Your task to perform on an android device: Show me popular games on the Play Store Image 0: 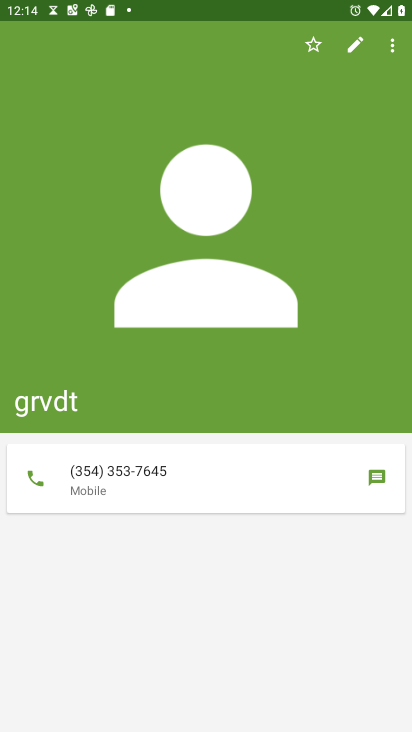
Step 0: press home button
Your task to perform on an android device: Show me popular games on the Play Store Image 1: 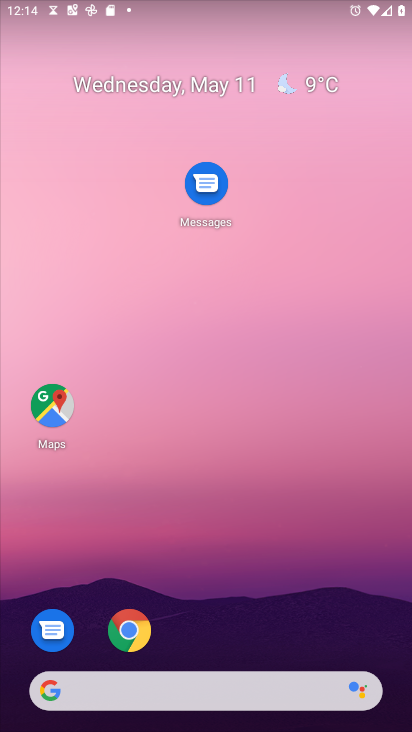
Step 1: drag from (219, 595) to (238, 2)
Your task to perform on an android device: Show me popular games on the Play Store Image 2: 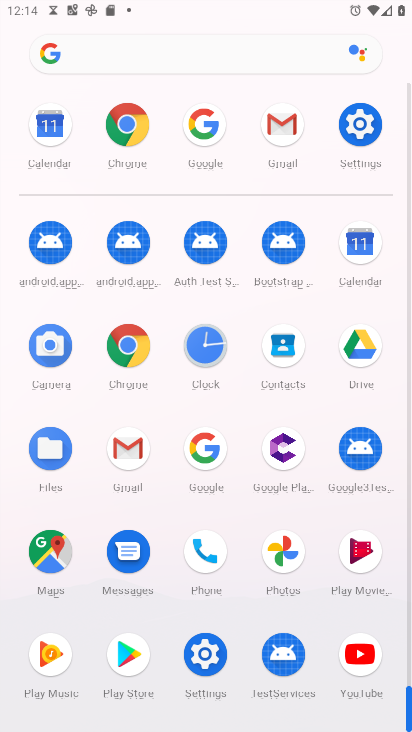
Step 2: click (123, 657)
Your task to perform on an android device: Show me popular games on the Play Store Image 3: 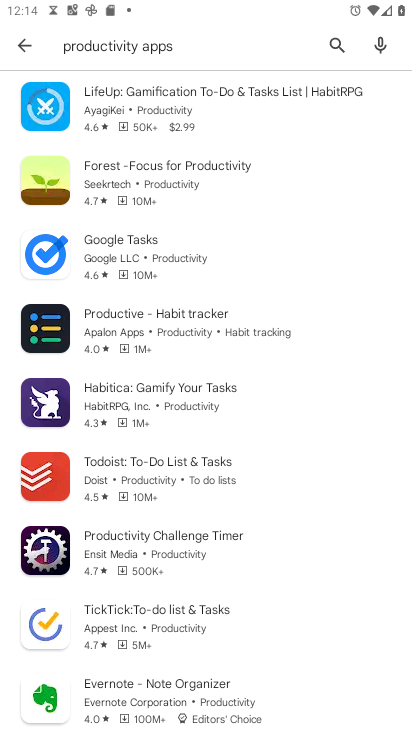
Step 3: click (39, 45)
Your task to perform on an android device: Show me popular games on the Play Store Image 4: 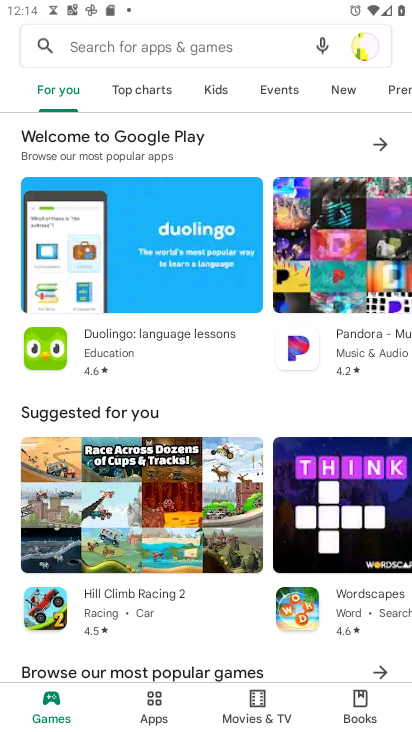
Step 4: click (109, 35)
Your task to perform on an android device: Show me popular games on the Play Store Image 5: 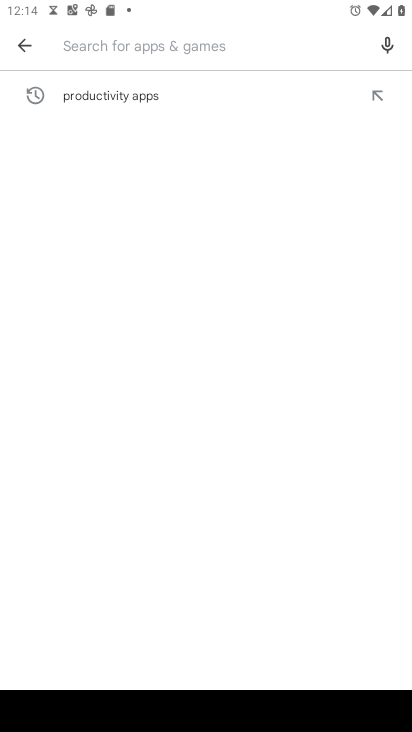
Step 5: type "popular game"
Your task to perform on an android device: Show me popular games on the Play Store Image 6: 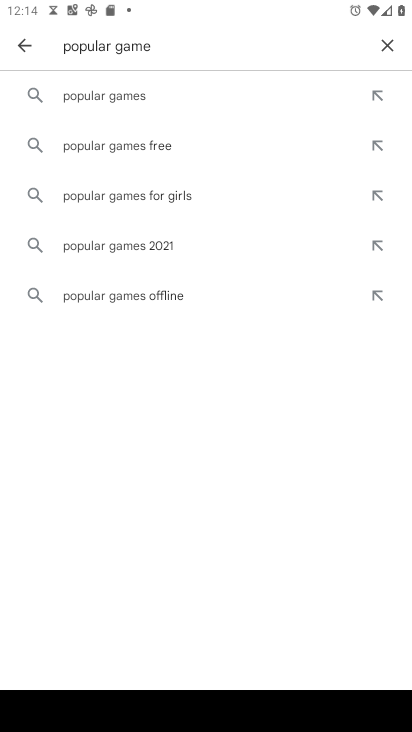
Step 6: click (158, 90)
Your task to perform on an android device: Show me popular games on the Play Store Image 7: 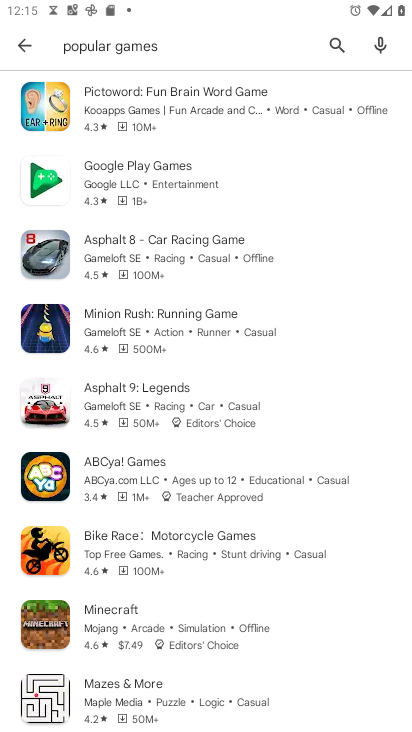
Step 7: task complete